Your task to perform on an android device: toggle notifications settings in the gmail app Image 0: 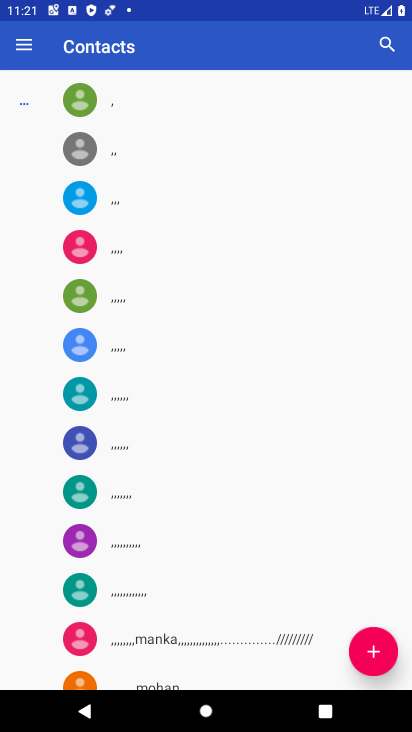
Step 0: press home button
Your task to perform on an android device: toggle notifications settings in the gmail app Image 1: 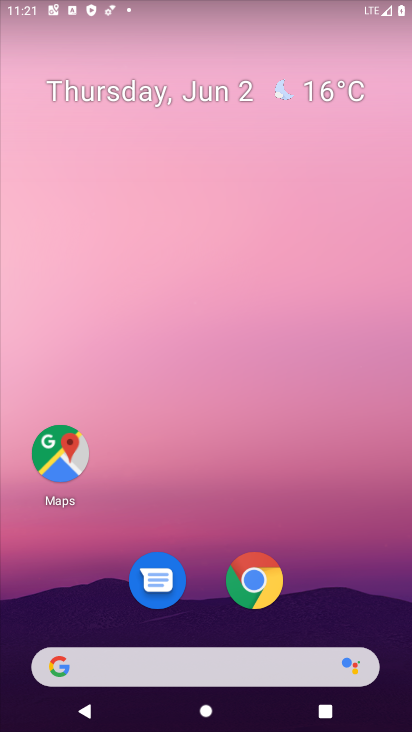
Step 1: drag from (309, 581) to (394, 4)
Your task to perform on an android device: toggle notifications settings in the gmail app Image 2: 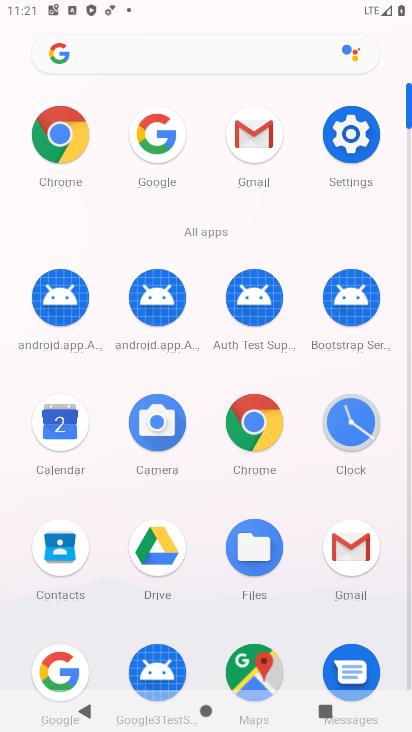
Step 2: click (270, 151)
Your task to perform on an android device: toggle notifications settings in the gmail app Image 3: 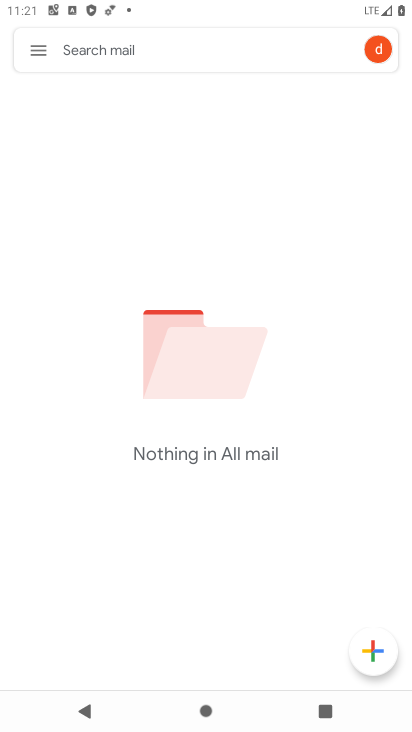
Step 3: click (30, 49)
Your task to perform on an android device: toggle notifications settings in the gmail app Image 4: 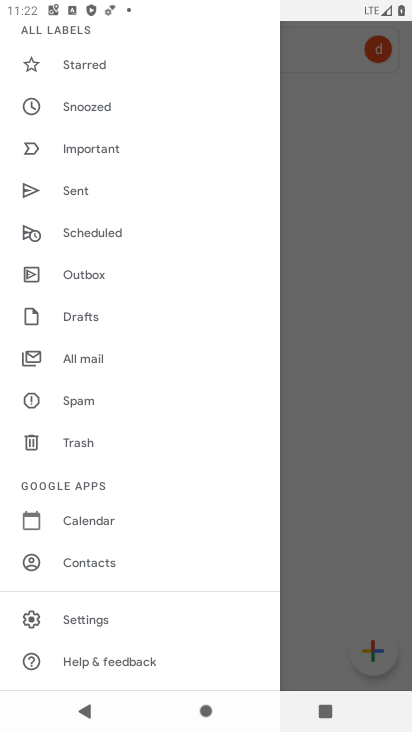
Step 4: click (94, 617)
Your task to perform on an android device: toggle notifications settings in the gmail app Image 5: 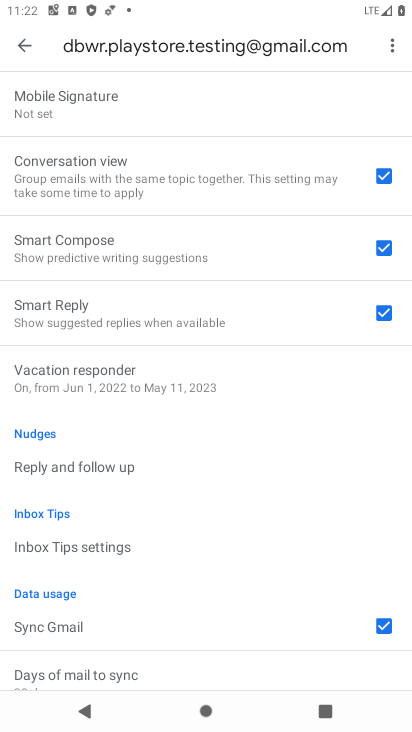
Step 5: click (19, 39)
Your task to perform on an android device: toggle notifications settings in the gmail app Image 6: 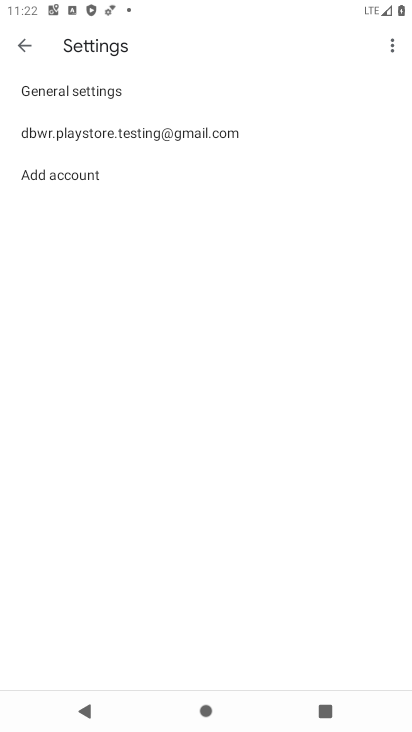
Step 6: click (84, 91)
Your task to perform on an android device: toggle notifications settings in the gmail app Image 7: 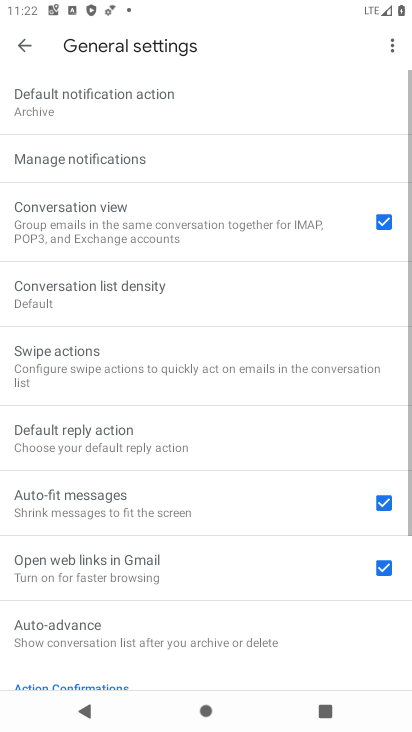
Step 7: click (94, 171)
Your task to perform on an android device: toggle notifications settings in the gmail app Image 8: 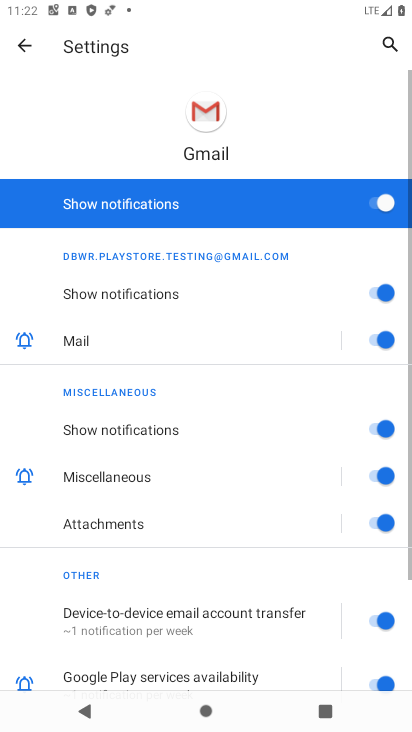
Step 8: click (408, 196)
Your task to perform on an android device: toggle notifications settings in the gmail app Image 9: 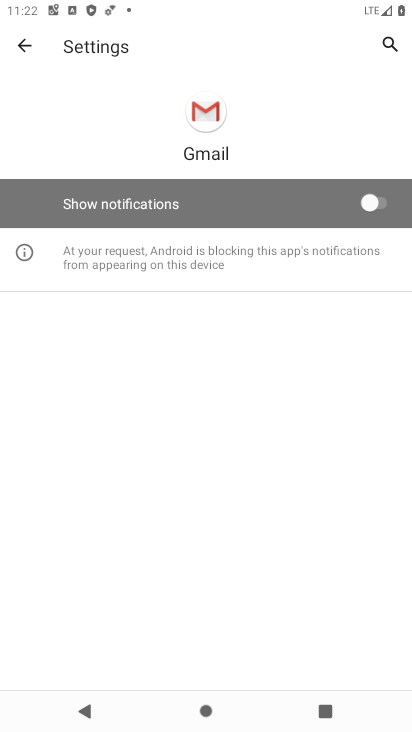
Step 9: task complete